Your task to perform on an android device: What's on my calendar tomorrow? Image 0: 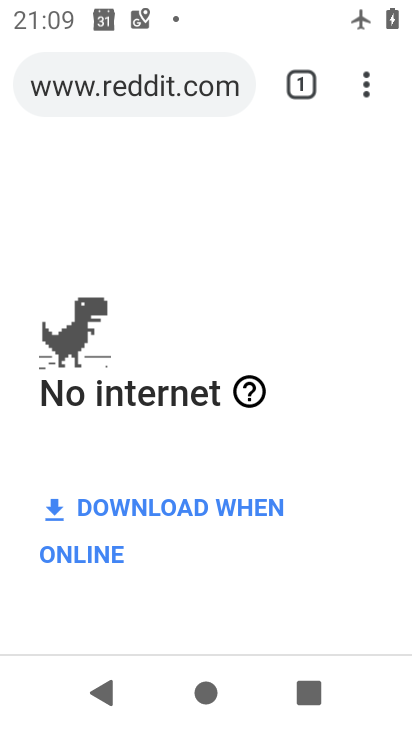
Step 0: press home button
Your task to perform on an android device: What's on my calendar tomorrow? Image 1: 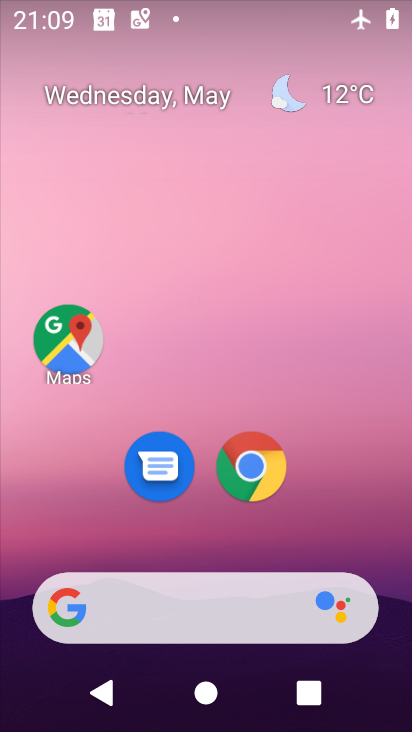
Step 1: drag from (208, 526) to (204, 80)
Your task to perform on an android device: What's on my calendar tomorrow? Image 2: 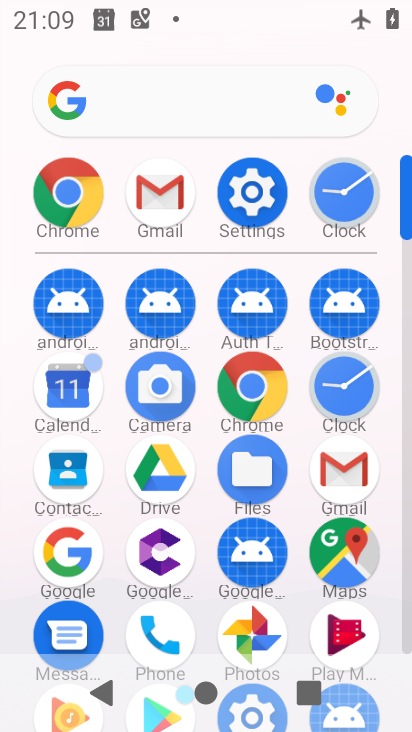
Step 2: click (74, 381)
Your task to perform on an android device: What's on my calendar tomorrow? Image 3: 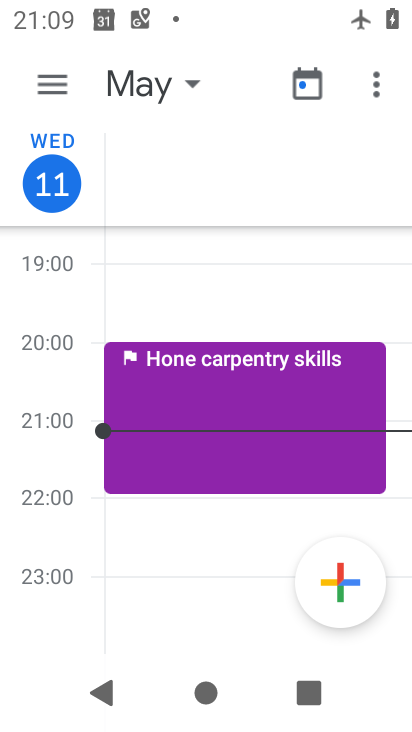
Step 3: click (57, 78)
Your task to perform on an android device: What's on my calendar tomorrow? Image 4: 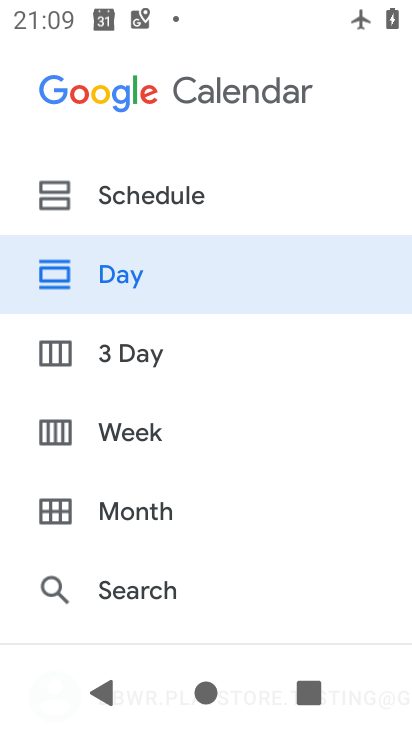
Step 4: click (90, 274)
Your task to perform on an android device: What's on my calendar tomorrow? Image 5: 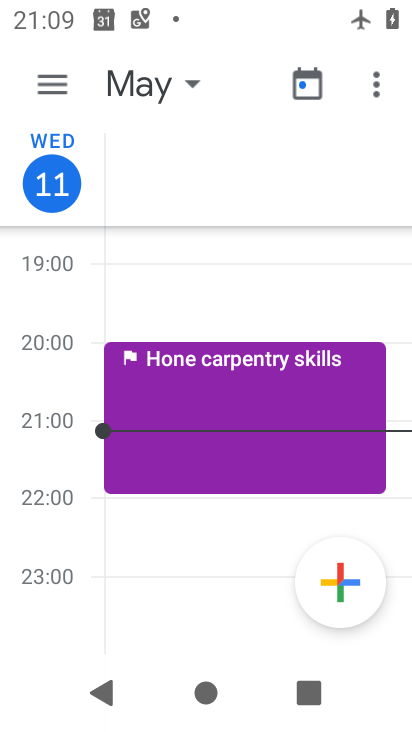
Step 5: click (159, 90)
Your task to perform on an android device: What's on my calendar tomorrow? Image 6: 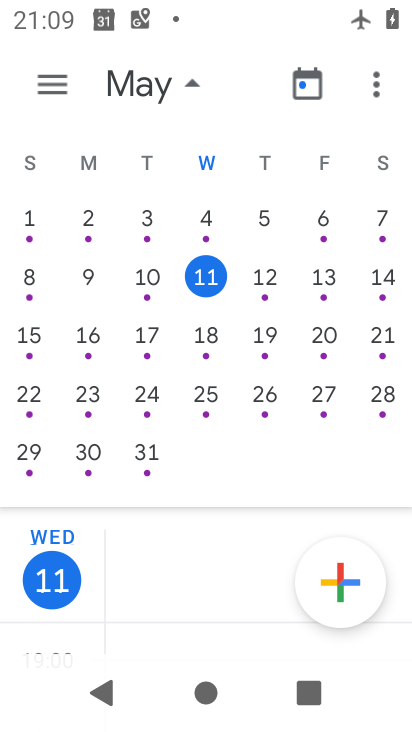
Step 6: click (262, 275)
Your task to perform on an android device: What's on my calendar tomorrow? Image 7: 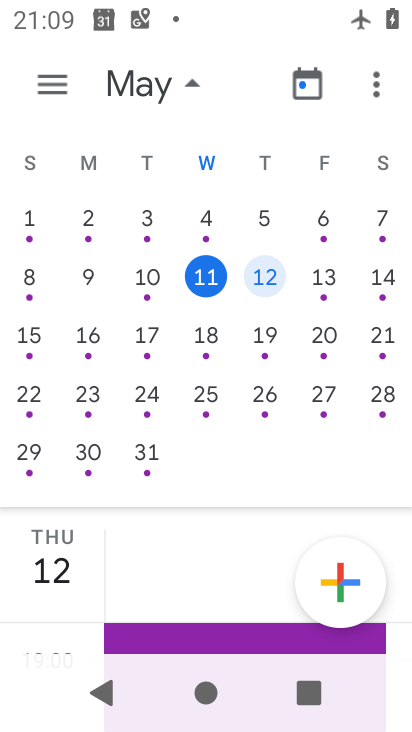
Step 7: click (187, 88)
Your task to perform on an android device: What's on my calendar tomorrow? Image 8: 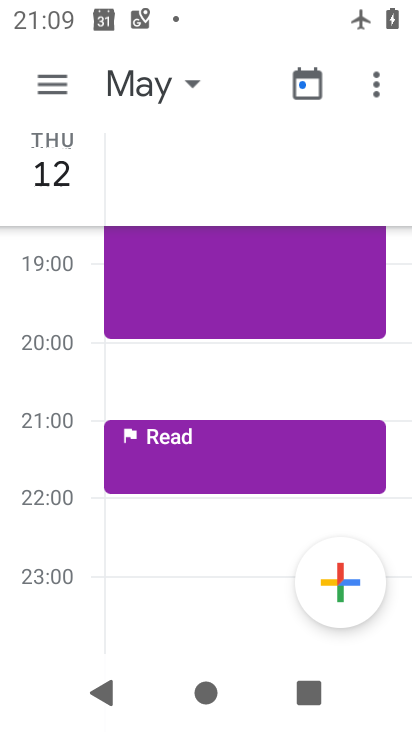
Step 8: drag from (67, 309) to (69, 617)
Your task to perform on an android device: What's on my calendar tomorrow? Image 9: 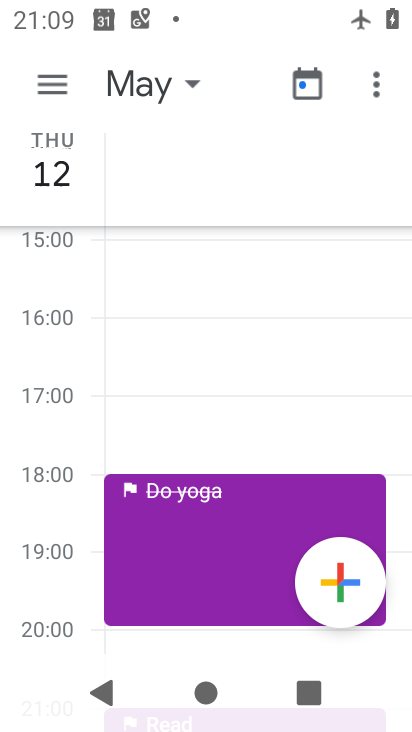
Step 9: drag from (75, 256) to (64, 660)
Your task to perform on an android device: What's on my calendar tomorrow? Image 10: 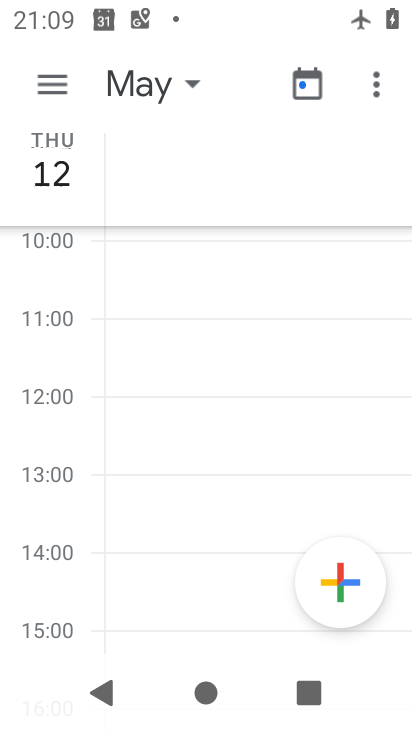
Step 10: drag from (91, 274) to (85, 615)
Your task to perform on an android device: What's on my calendar tomorrow? Image 11: 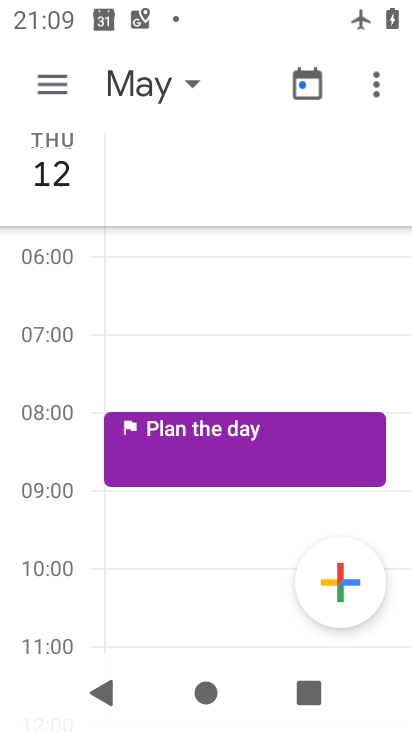
Step 11: drag from (77, 300) to (79, 601)
Your task to perform on an android device: What's on my calendar tomorrow? Image 12: 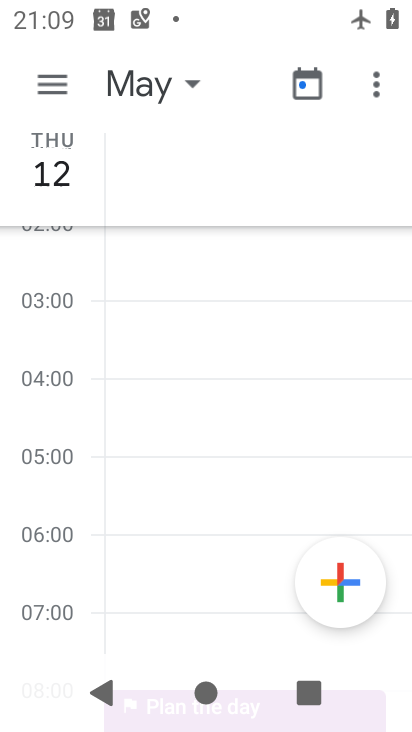
Step 12: drag from (79, 602) to (99, 204)
Your task to perform on an android device: What's on my calendar tomorrow? Image 13: 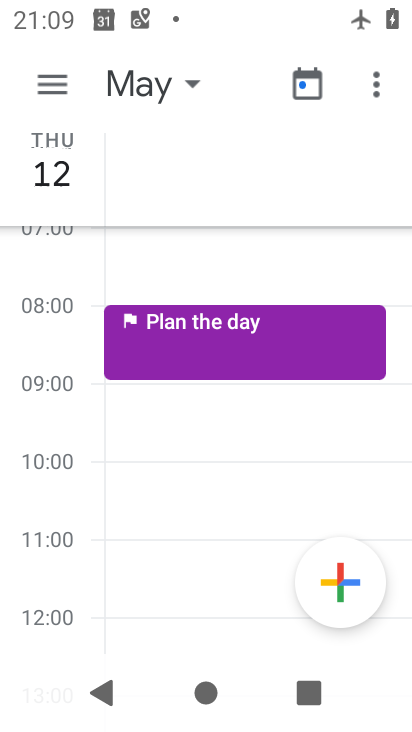
Step 13: drag from (67, 323) to (79, 237)
Your task to perform on an android device: What's on my calendar tomorrow? Image 14: 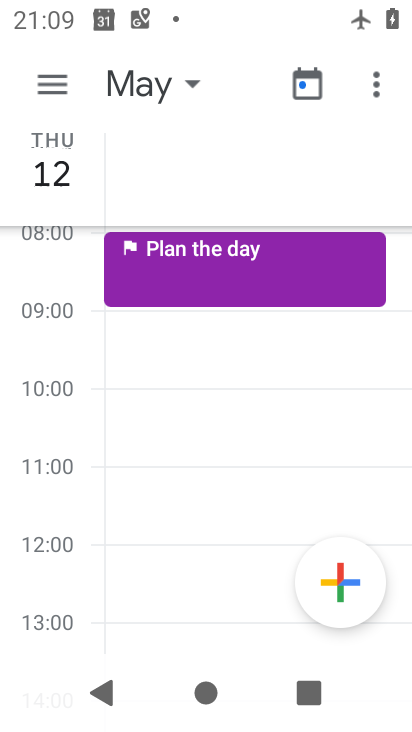
Step 14: drag from (62, 582) to (72, 278)
Your task to perform on an android device: What's on my calendar tomorrow? Image 15: 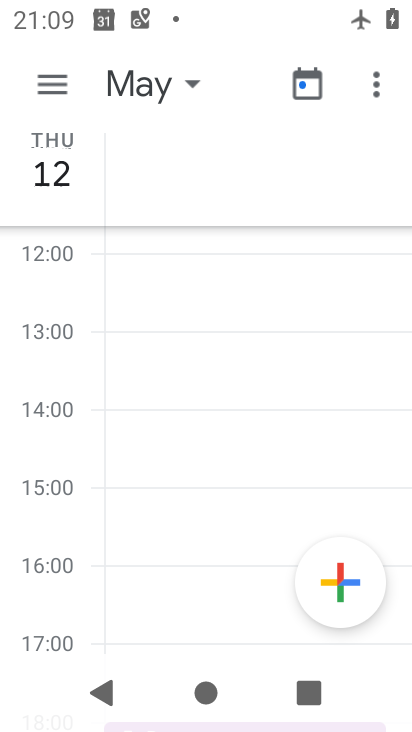
Step 15: drag from (69, 617) to (68, 238)
Your task to perform on an android device: What's on my calendar tomorrow? Image 16: 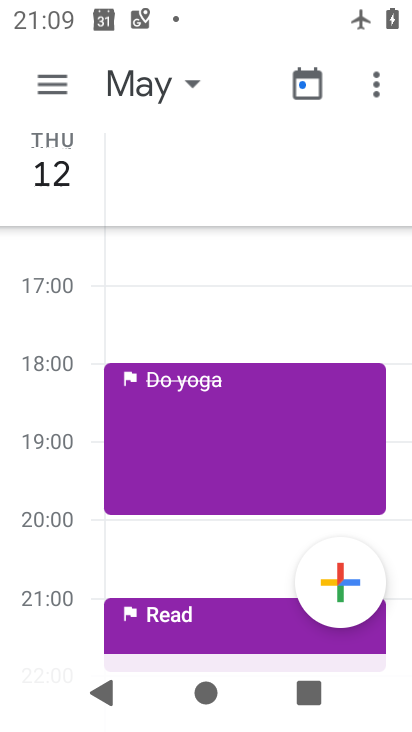
Step 16: drag from (53, 598) to (55, 303)
Your task to perform on an android device: What's on my calendar tomorrow? Image 17: 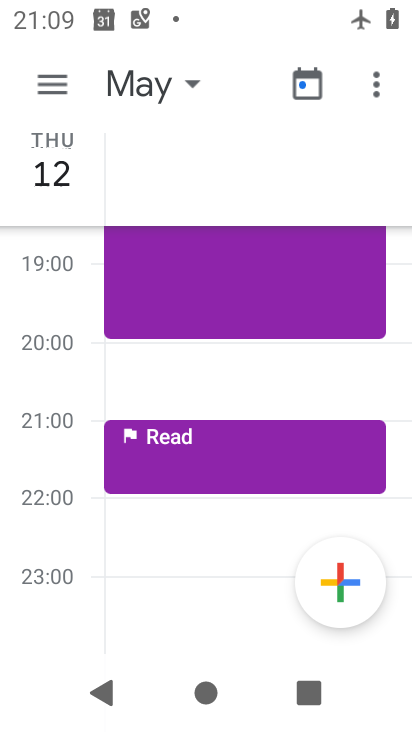
Step 17: click (58, 205)
Your task to perform on an android device: What's on my calendar tomorrow? Image 18: 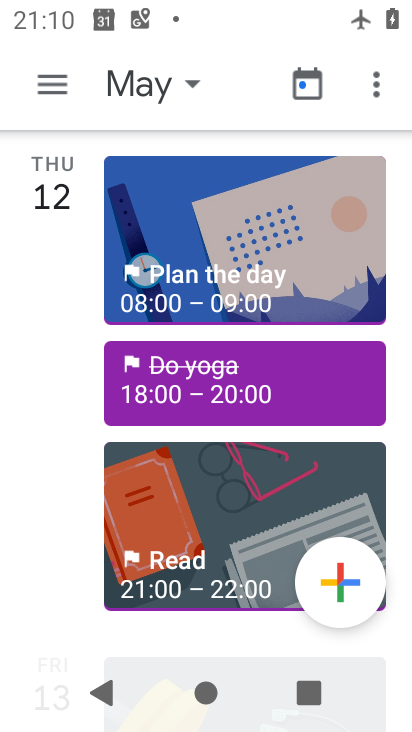
Step 18: task complete